Your task to perform on an android device: turn on priority inbox in the gmail app Image 0: 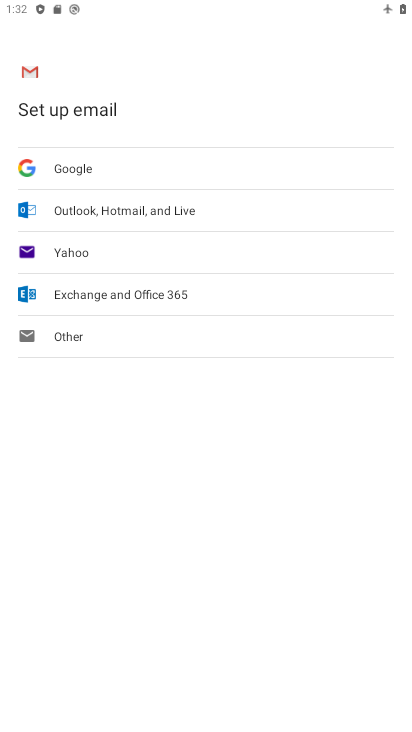
Step 0: press home button
Your task to perform on an android device: turn on priority inbox in the gmail app Image 1: 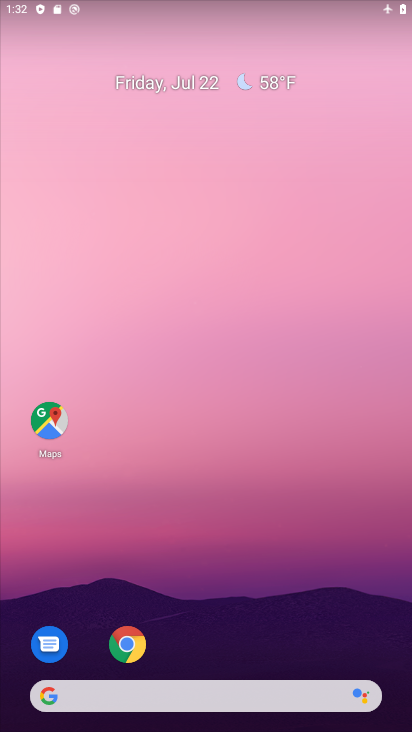
Step 1: drag from (234, 662) to (223, 204)
Your task to perform on an android device: turn on priority inbox in the gmail app Image 2: 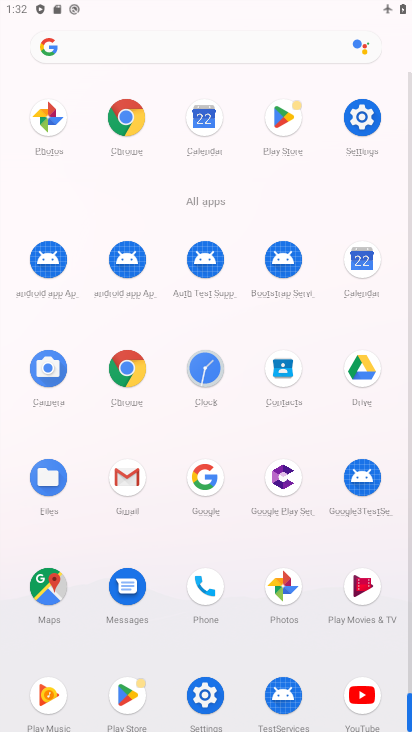
Step 2: click (125, 483)
Your task to perform on an android device: turn on priority inbox in the gmail app Image 3: 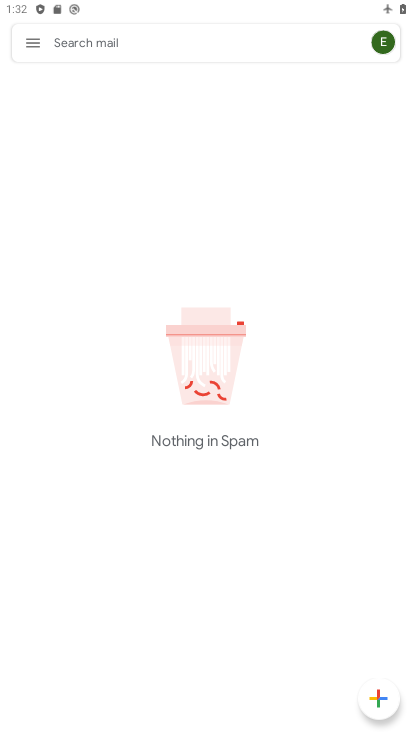
Step 3: click (34, 41)
Your task to perform on an android device: turn on priority inbox in the gmail app Image 4: 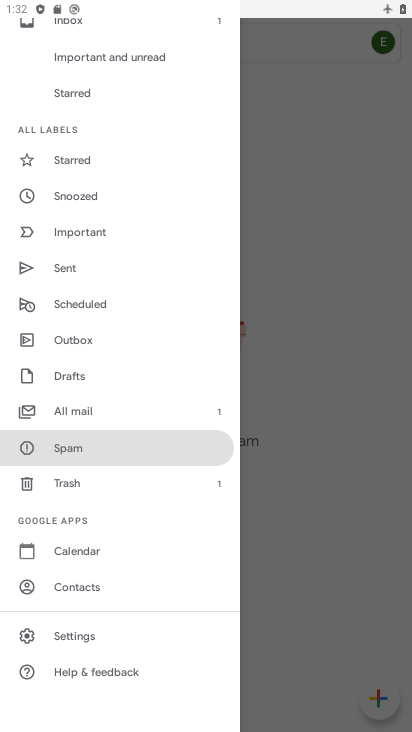
Step 4: click (77, 631)
Your task to perform on an android device: turn on priority inbox in the gmail app Image 5: 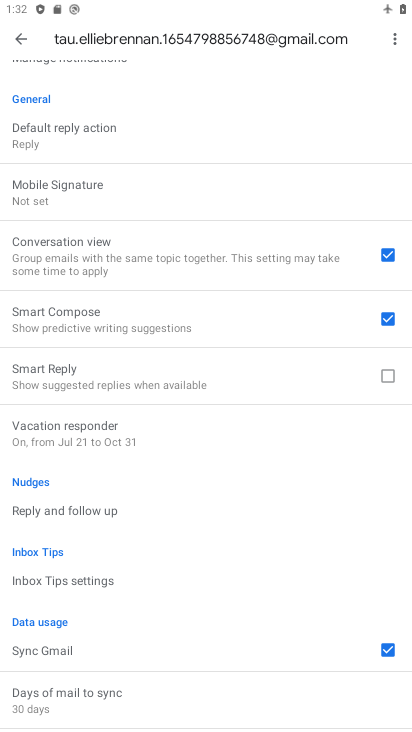
Step 5: drag from (114, 139) to (153, 550)
Your task to perform on an android device: turn on priority inbox in the gmail app Image 6: 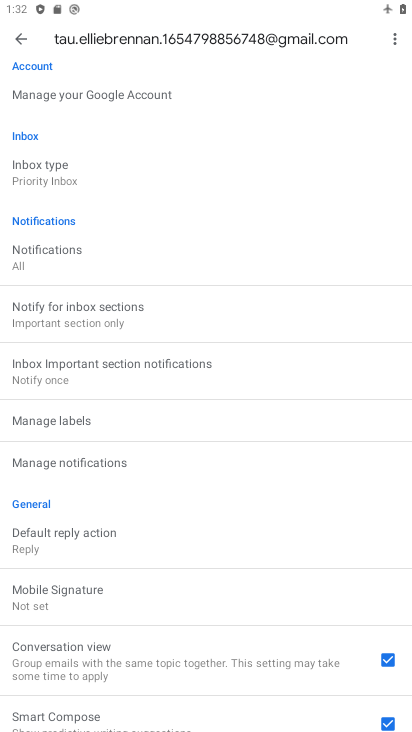
Step 6: click (43, 170)
Your task to perform on an android device: turn on priority inbox in the gmail app Image 7: 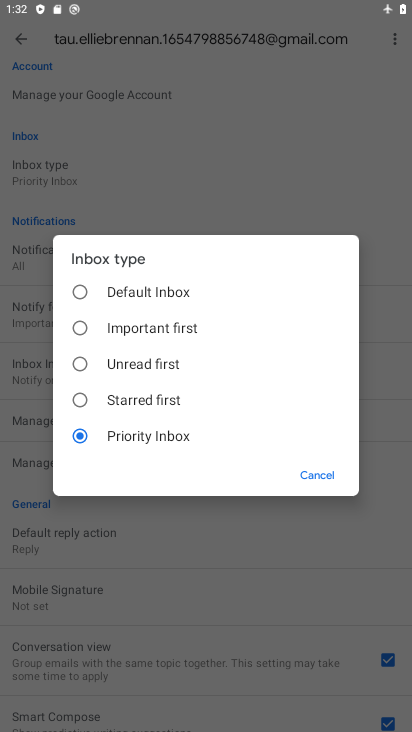
Step 7: click (320, 477)
Your task to perform on an android device: turn on priority inbox in the gmail app Image 8: 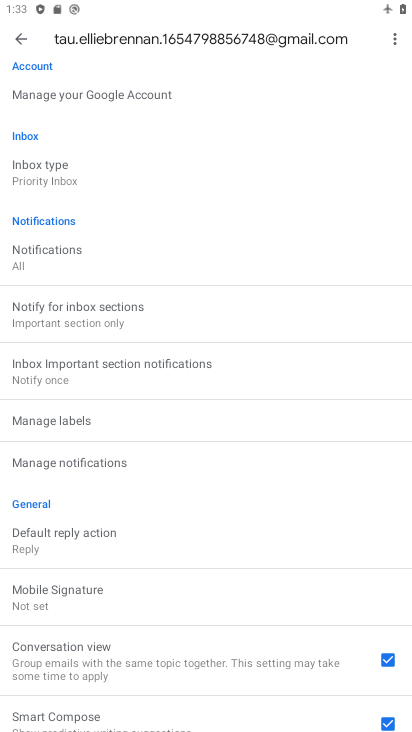
Step 8: task complete